Your task to perform on an android device: open a bookmark in the chrome app Image 0: 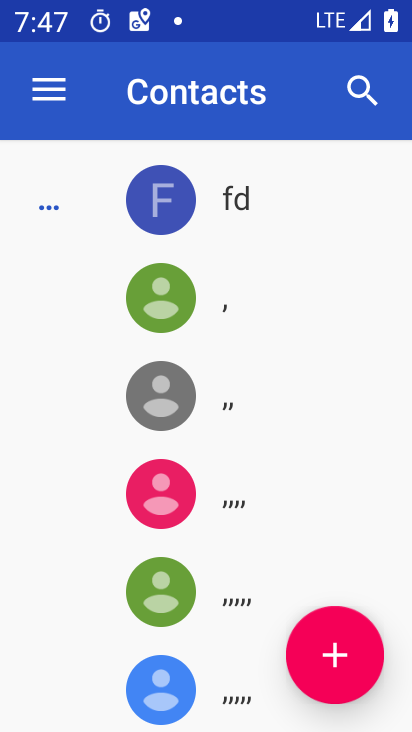
Step 0: press home button
Your task to perform on an android device: open a bookmark in the chrome app Image 1: 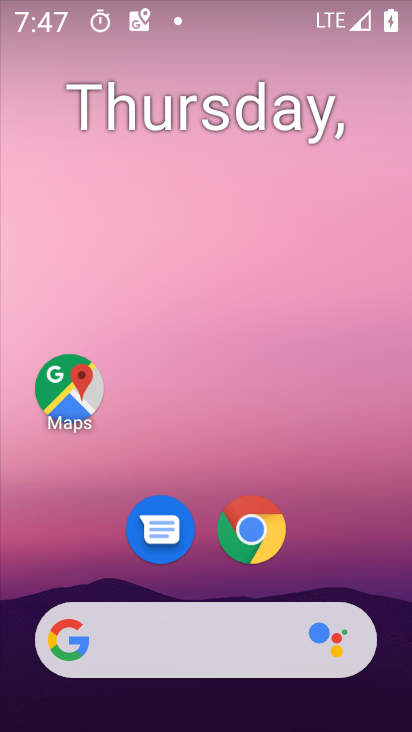
Step 1: drag from (371, 560) to (378, 208)
Your task to perform on an android device: open a bookmark in the chrome app Image 2: 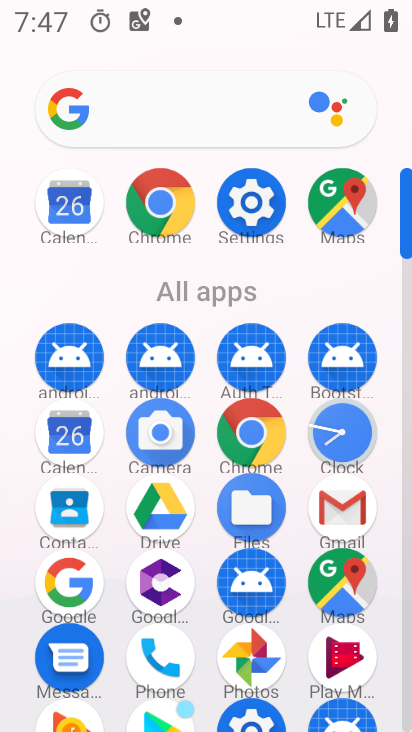
Step 2: click (268, 442)
Your task to perform on an android device: open a bookmark in the chrome app Image 3: 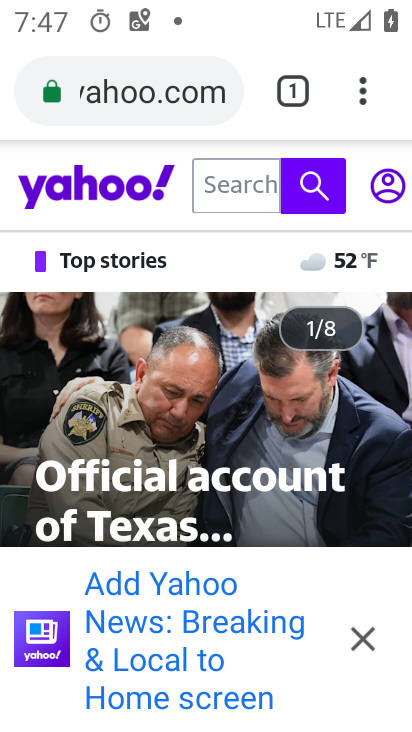
Step 3: click (364, 96)
Your task to perform on an android device: open a bookmark in the chrome app Image 4: 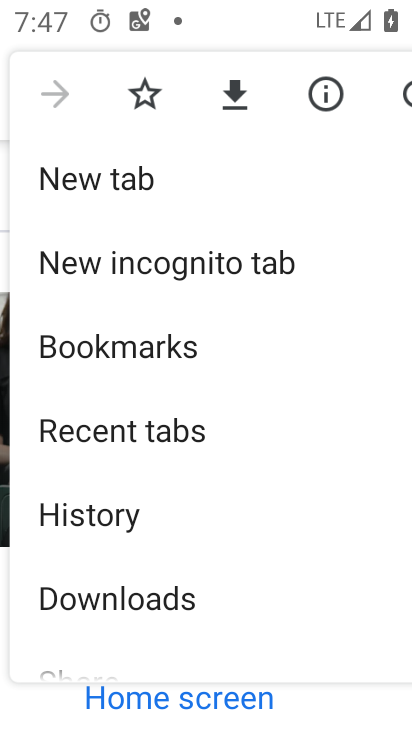
Step 4: click (223, 360)
Your task to perform on an android device: open a bookmark in the chrome app Image 5: 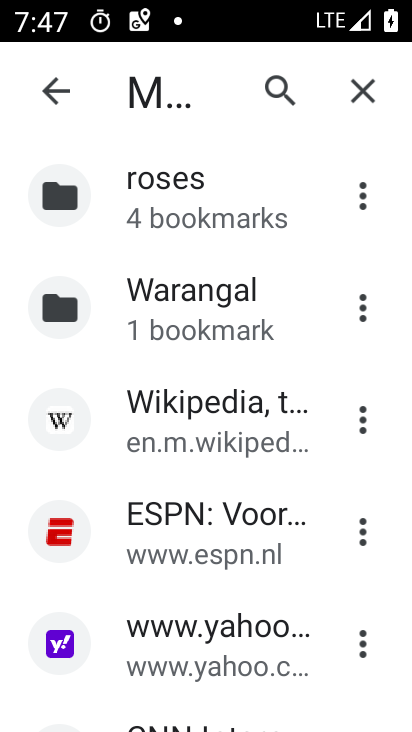
Step 5: click (212, 216)
Your task to perform on an android device: open a bookmark in the chrome app Image 6: 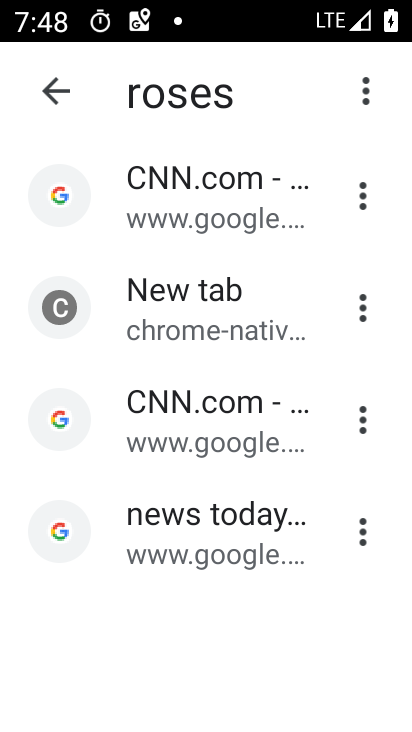
Step 6: click (234, 196)
Your task to perform on an android device: open a bookmark in the chrome app Image 7: 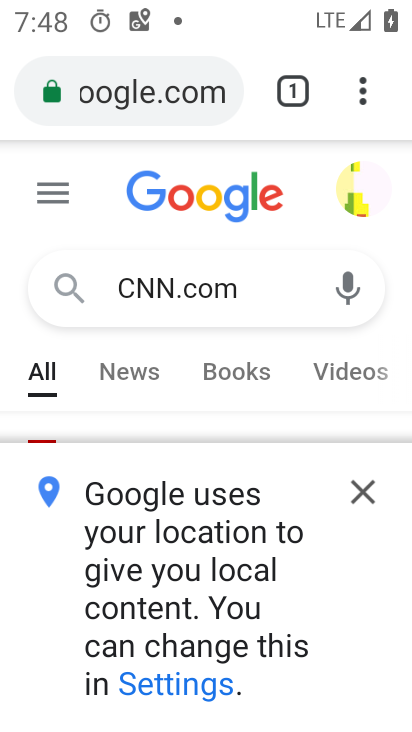
Step 7: task complete